Your task to perform on an android device: Open maps Image 0: 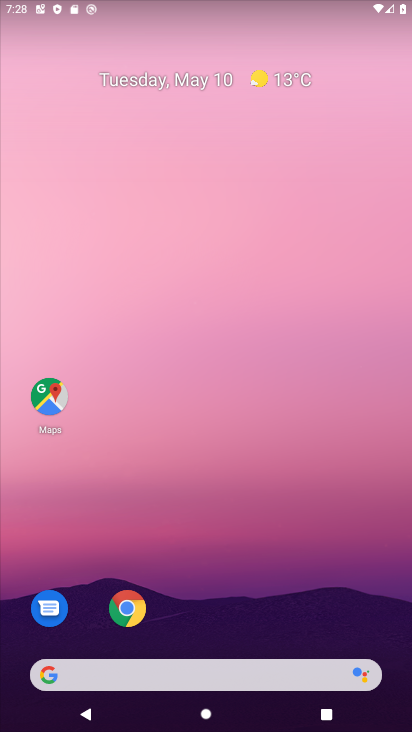
Step 0: click (124, 607)
Your task to perform on an android device: Open maps Image 1: 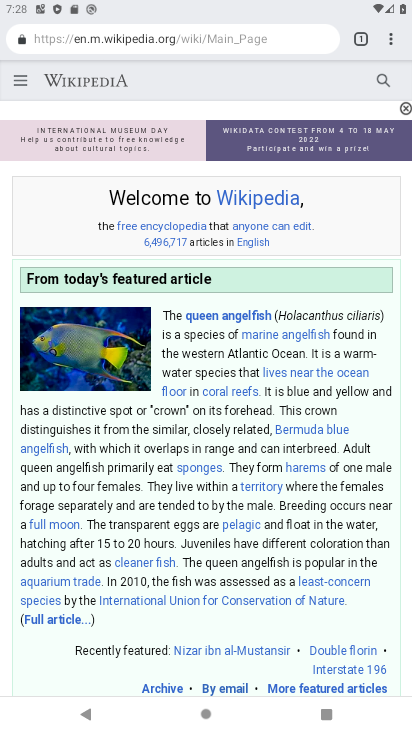
Step 1: press home button
Your task to perform on an android device: Open maps Image 2: 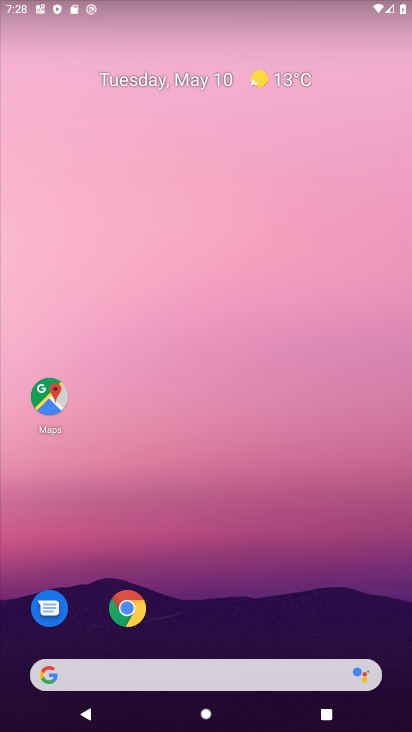
Step 2: click (67, 404)
Your task to perform on an android device: Open maps Image 3: 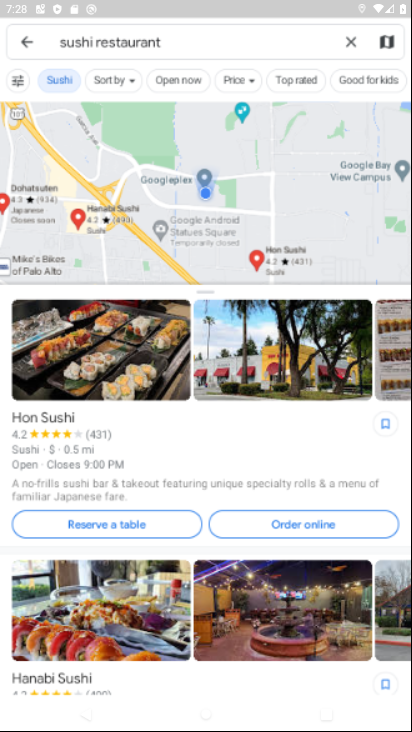
Step 3: task complete